Your task to perform on an android device: toggle improve location accuracy Image 0: 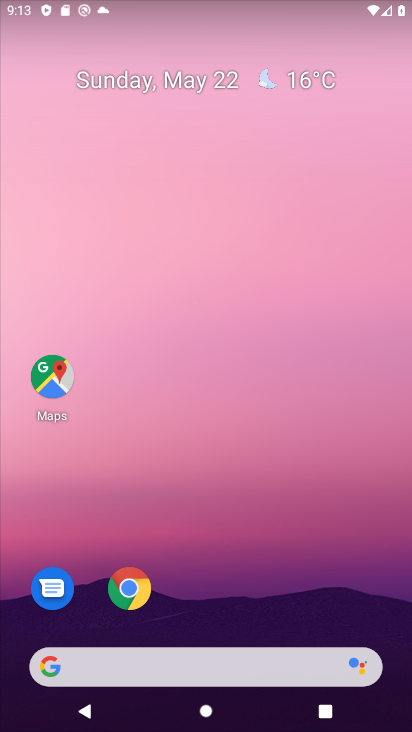
Step 0: drag from (195, 616) to (207, 232)
Your task to perform on an android device: toggle improve location accuracy Image 1: 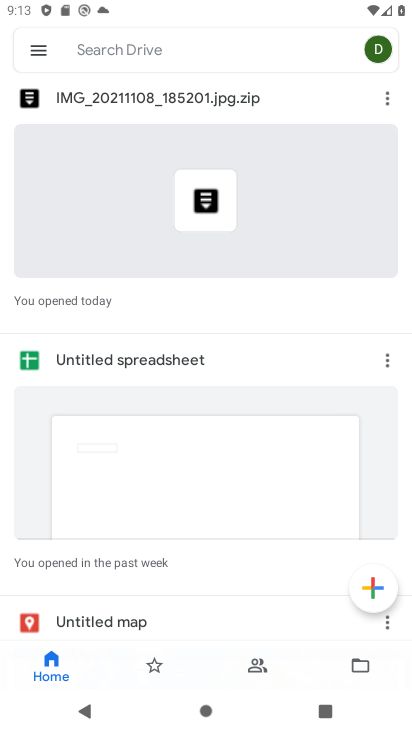
Step 1: press home button
Your task to perform on an android device: toggle improve location accuracy Image 2: 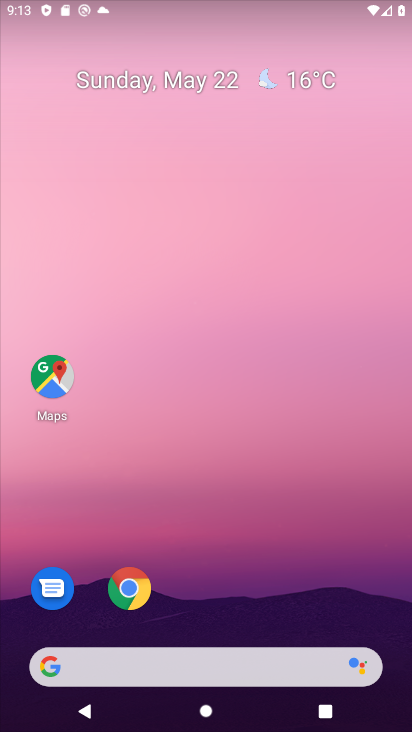
Step 2: drag from (211, 621) to (218, 203)
Your task to perform on an android device: toggle improve location accuracy Image 3: 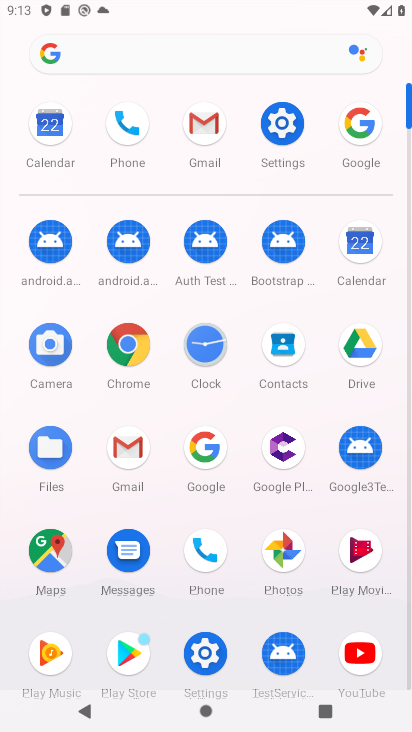
Step 3: click (283, 147)
Your task to perform on an android device: toggle improve location accuracy Image 4: 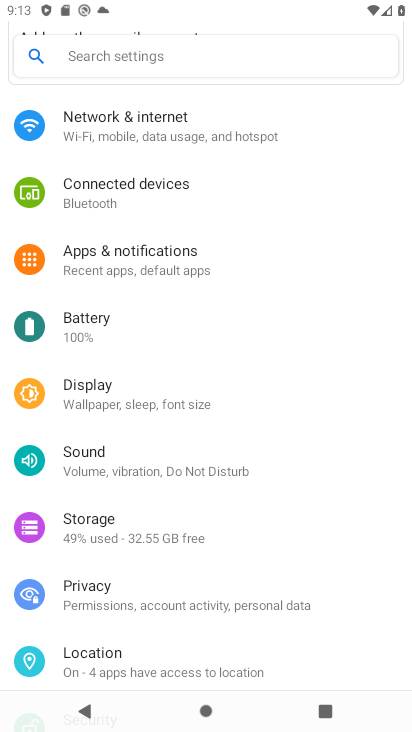
Step 4: click (170, 657)
Your task to perform on an android device: toggle improve location accuracy Image 5: 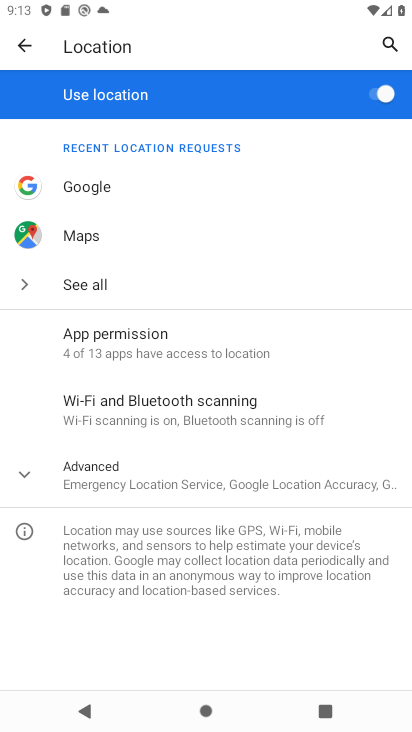
Step 5: click (140, 477)
Your task to perform on an android device: toggle improve location accuracy Image 6: 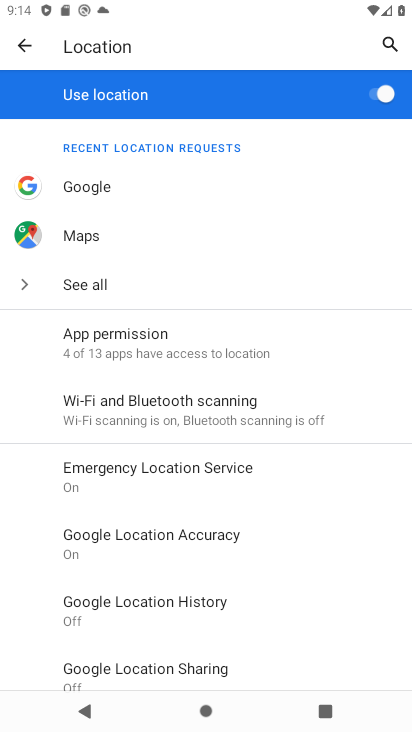
Step 6: drag from (199, 623) to (207, 462)
Your task to perform on an android device: toggle improve location accuracy Image 7: 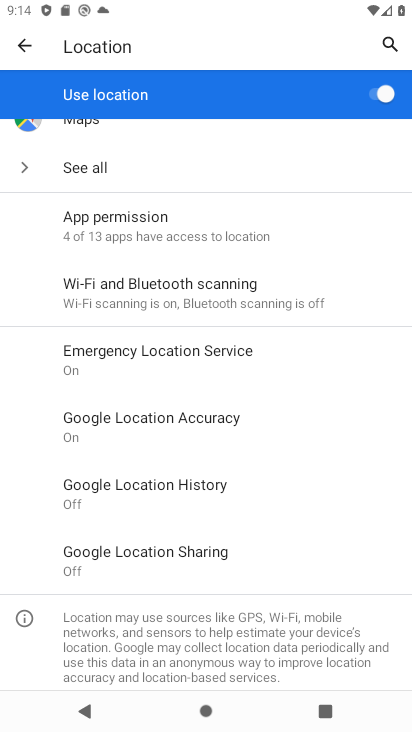
Step 7: click (127, 408)
Your task to perform on an android device: toggle improve location accuracy Image 8: 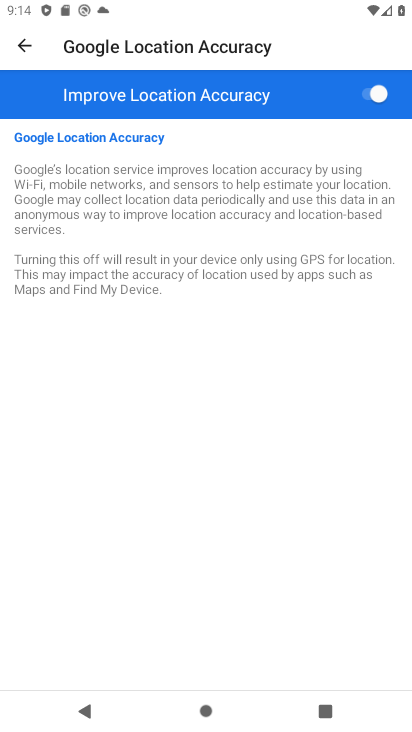
Step 8: click (373, 93)
Your task to perform on an android device: toggle improve location accuracy Image 9: 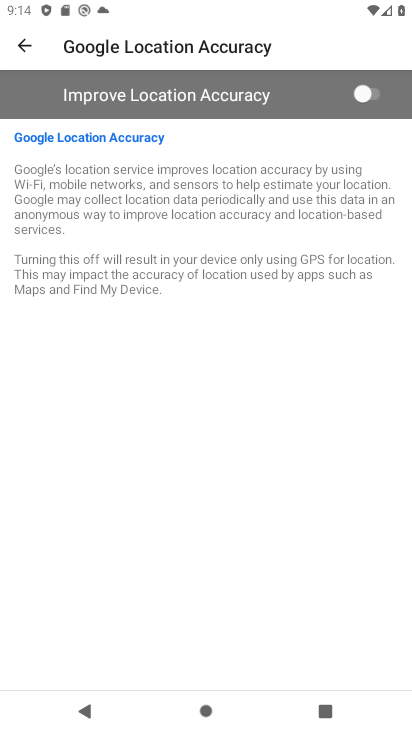
Step 9: task complete